Your task to perform on an android device: turn off notifications in google photos Image 0: 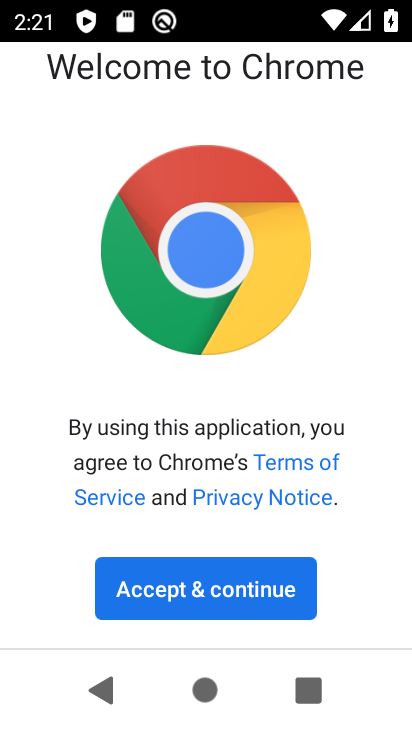
Step 0: press home button
Your task to perform on an android device: turn off notifications in google photos Image 1: 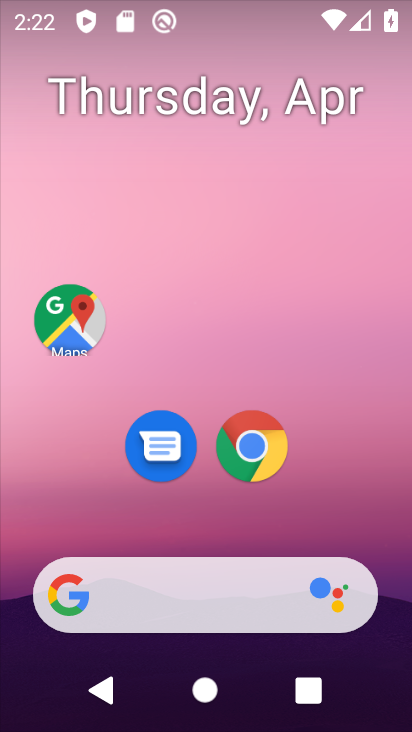
Step 1: drag from (258, 618) to (224, 160)
Your task to perform on an android device: turn off notifications in google photos Image 2: 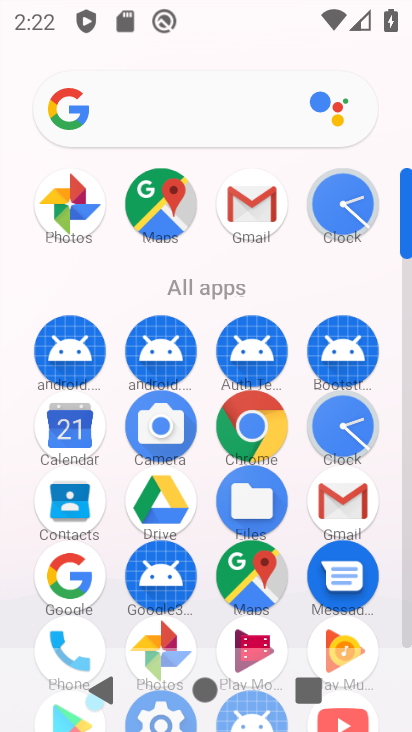
Step 2: click (174, 640)
Your task to perform on an android device: turn off notifications in google photos Image 3: 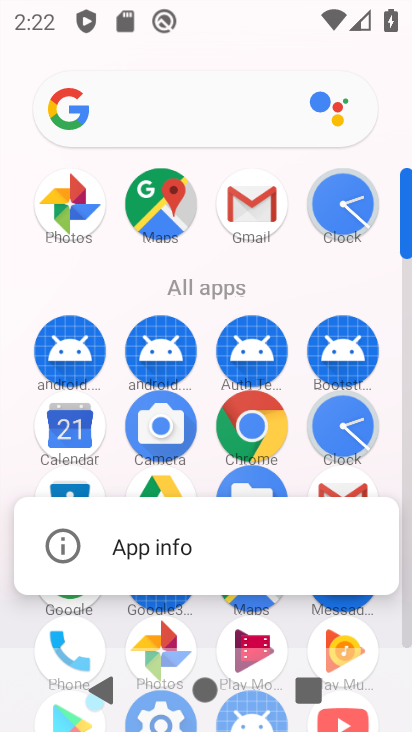
Step 3: click (176, 643)
Your task to perform on an android device: turn off notifications in google photos Image 4: 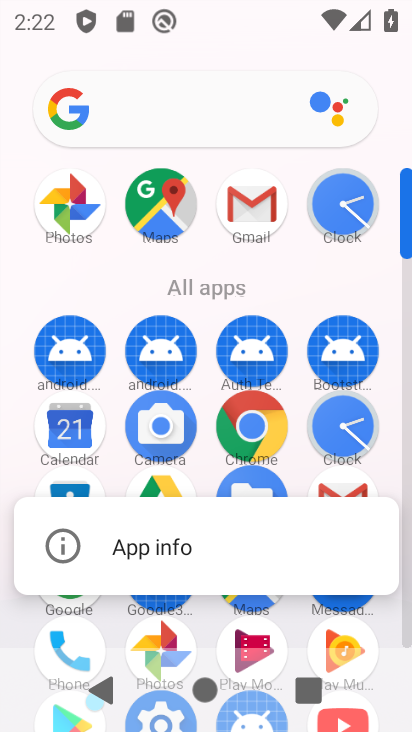
Step 4: click (176, 643)
Your task to perform on an android device: turn off notifications in google photos Image 5: 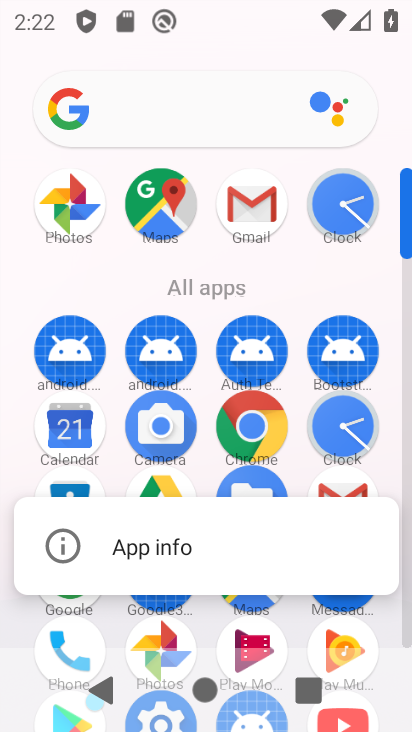
Step 5: click (81, 207)
Your task to perform on an android device: turn off notifications in google photos Image 6: 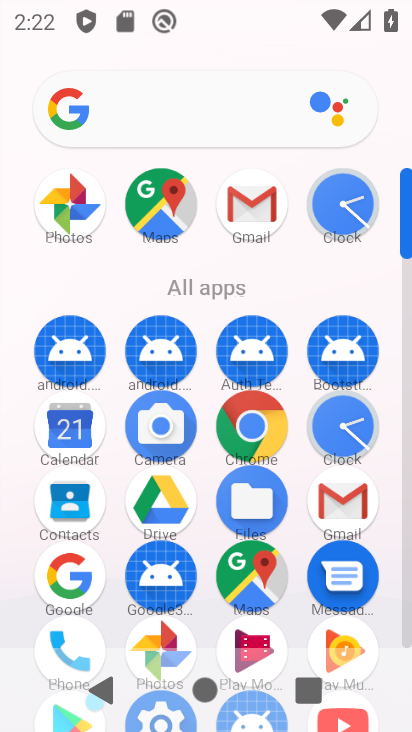
Step 6: click (77, 208)
Your task to perform on an android device: turn off notifications in google photos Image 7: 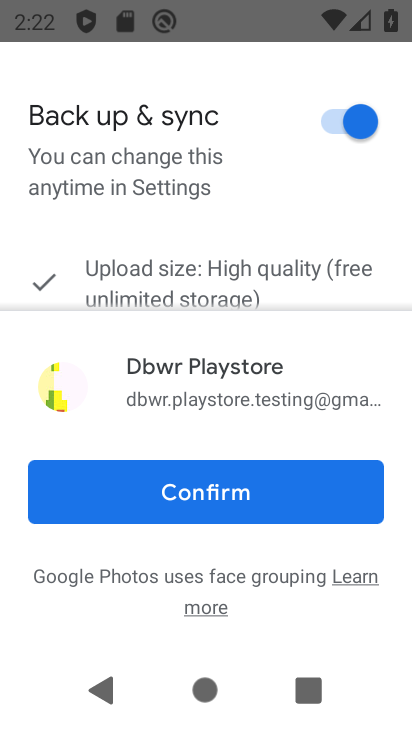
Step 7: click (220, 498)
Your task to perform on an android device: turn off notifications in google photos Image 8: 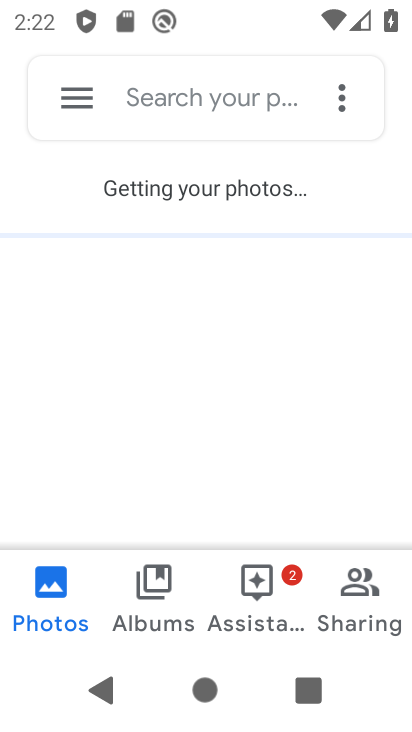
Step 8: click (89, 97)
Your task to perform on an android device: turn off notifications in google photos Image 9: 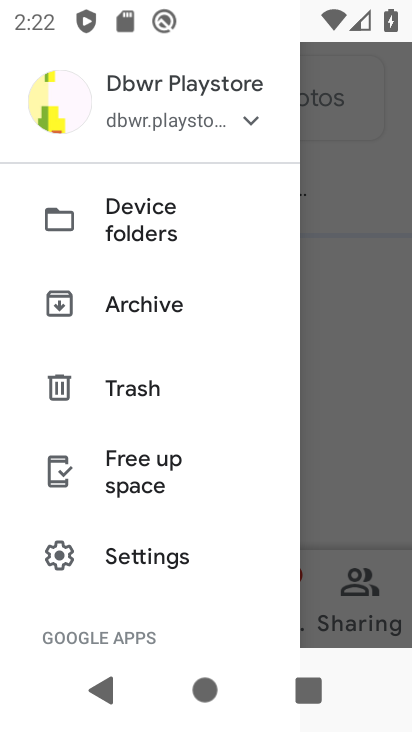
Step 9: click (149, 542)
Your task to perform on an android device: turn off notifications in google photos Image 10: 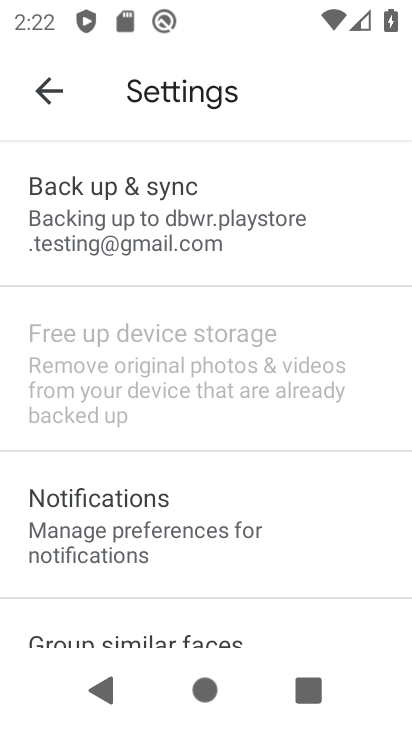
Step 10: click (185, 503)
Your task to perform on an android device: turn off notifications in google photos Image 11: 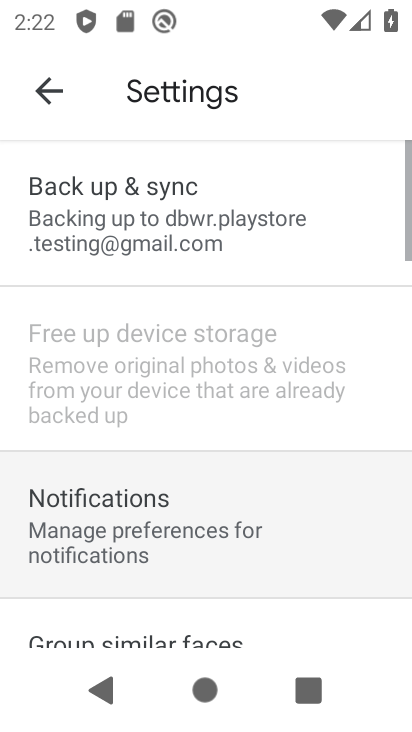
Step 11: click (139, 547)
Your task to perform on an android device: turn off notifications in google photos Image 12: 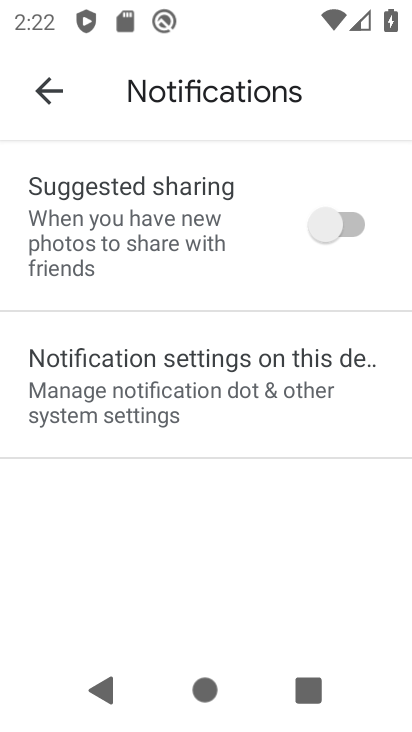
Step 12: click (170, 404)
Your task to perform on an android device: turn off notifications in google photos Image 13: 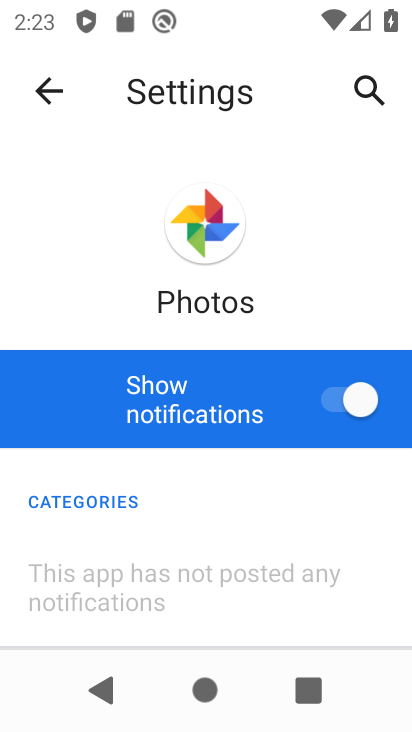
Step 13: click (316, 392)
Your task to perform on an android device: turn off notifications in google photos Image 14: 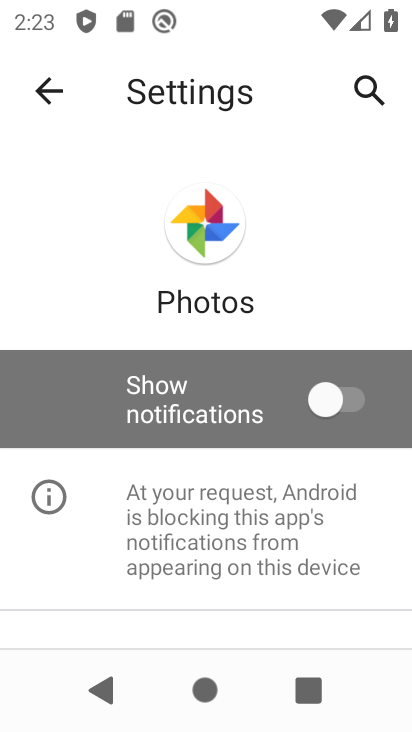
Step 14: task complete